Your task to perform on an android device: Open Chrome and go to the settings page Image 0: 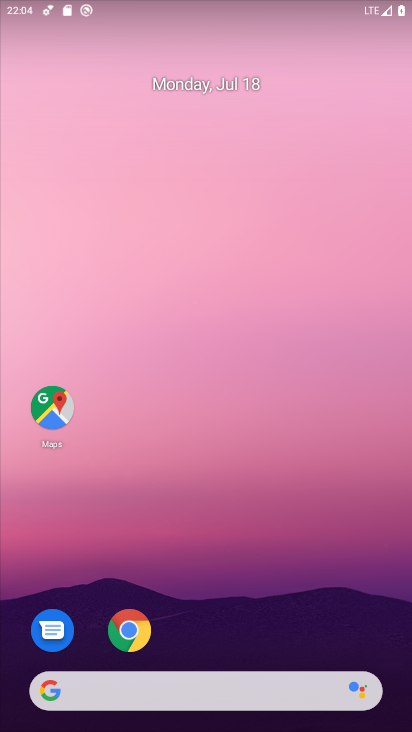
Step 0: drag from (298, 585) to (278, 103)
Your task to perform on an android device: Open Chrome and go to the settings page Image 1: 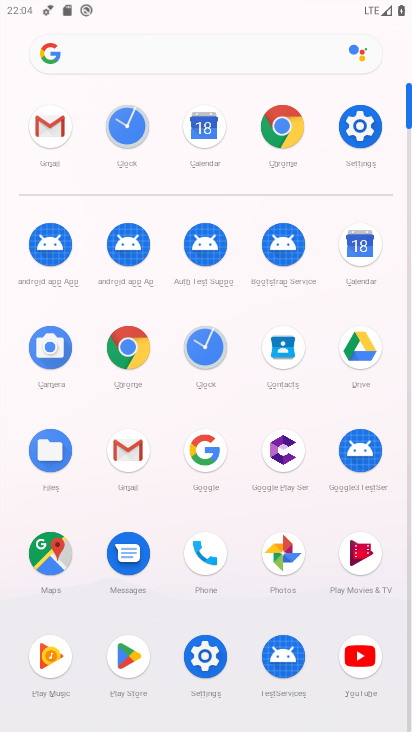
Step 1: click (284, 123)
Your task to perform on an android device: Open Chrome and go to the settings page Image 2: 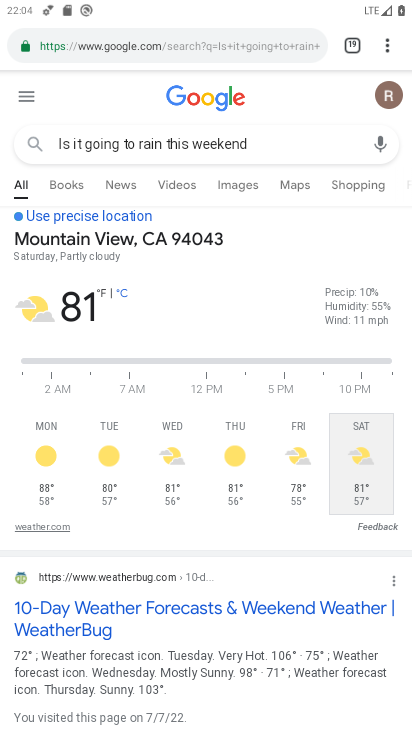
Step 2: click (388, 39)
Your task to perform on an android device: Open Chrome and go to the settings page Image 3: 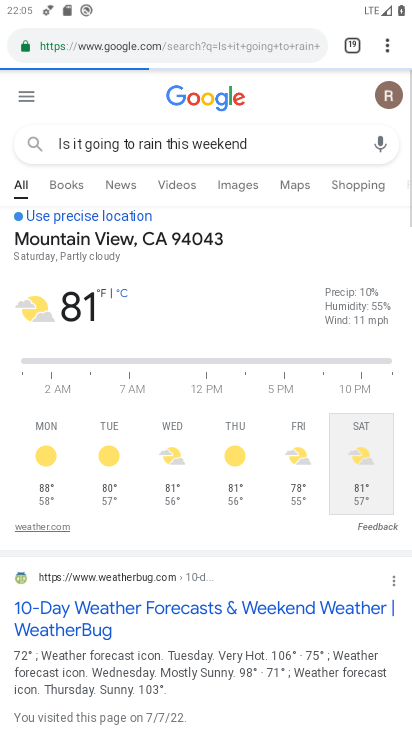
Step 3: click (386, 54)
Your task to perform on an android device: Open Chrome and go to the settings page Image 4: 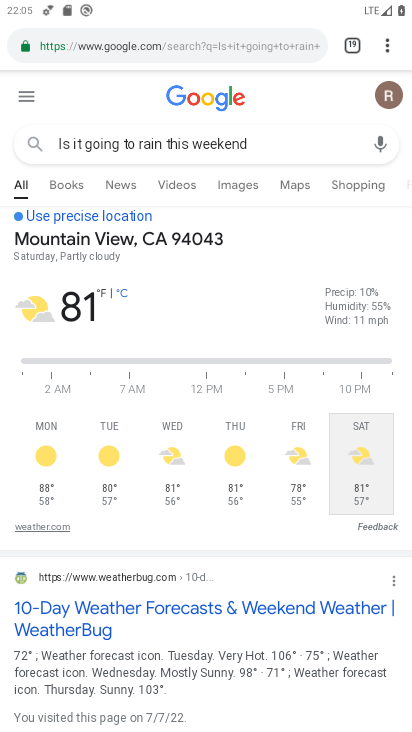
Step 4: click (386, 43)
Your task to perform on an android device: Open Chrome and go to the settings page Image 5: 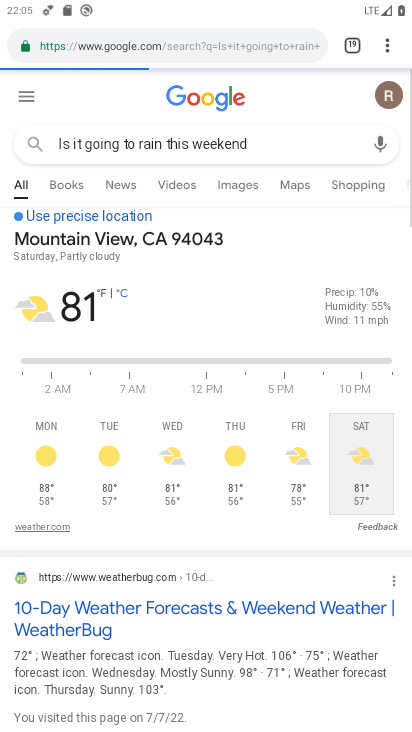
Step 5: click (386, 43)
Your task to perform on an android device: Open Chrome and go to the settings page Image 6: 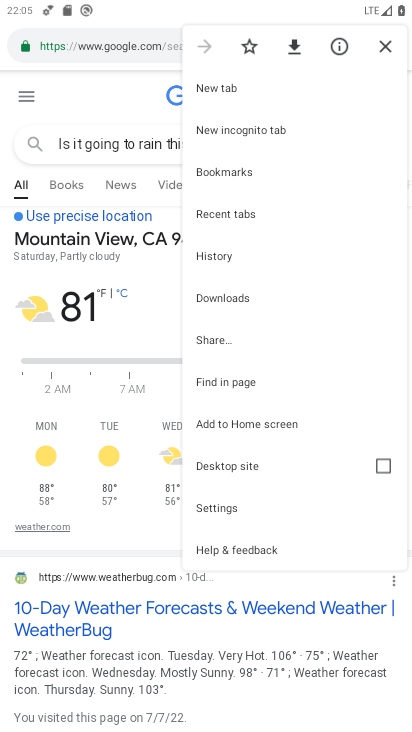
Step 6: click (260, 501)
Your task to perform on an android device: Open Chrome and go to the settings page Image 7: 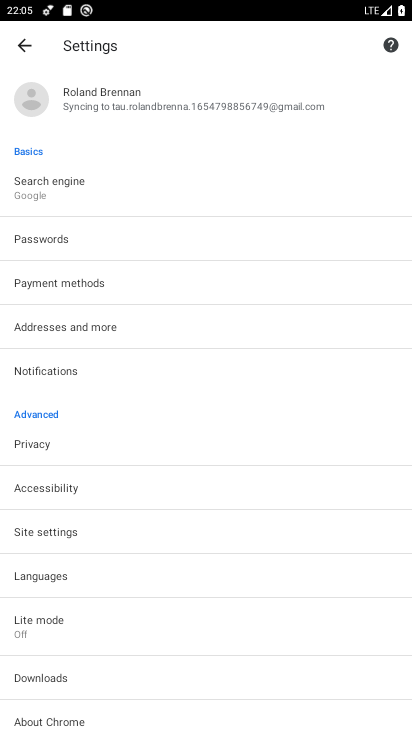
Step 7: task complete